Your task to perform on an android device: toggle show notifications on the lock screen Image 0: 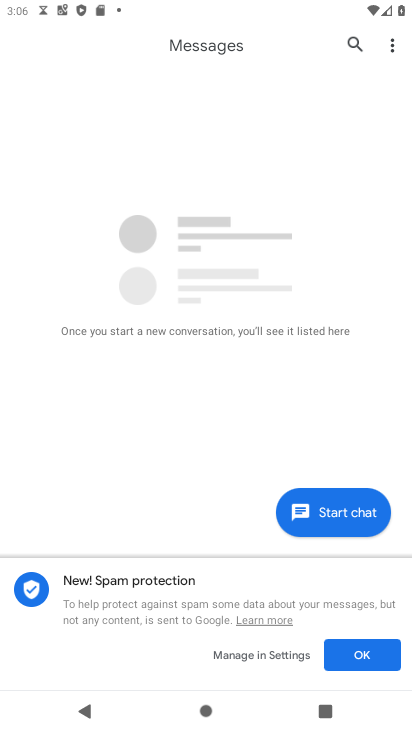
Step 0: press home button
Your task to perform on an android device: toggle show notifications on the lock screen Image 1: 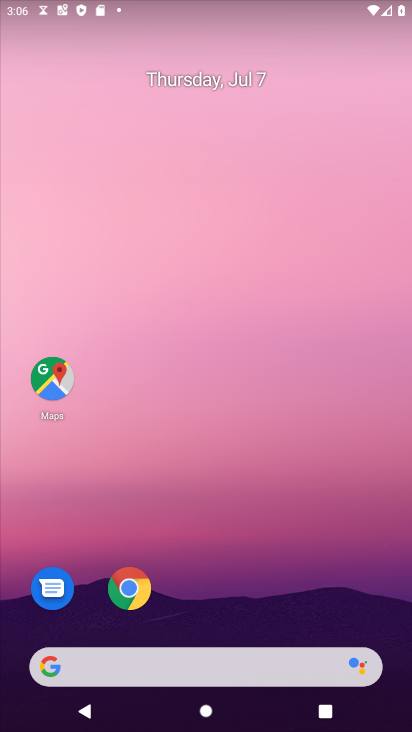
Step 1: drag from (260, 584) to (226, 56)
Your task to perform on an android device: toggle show notifications on the lock screen Image 2: 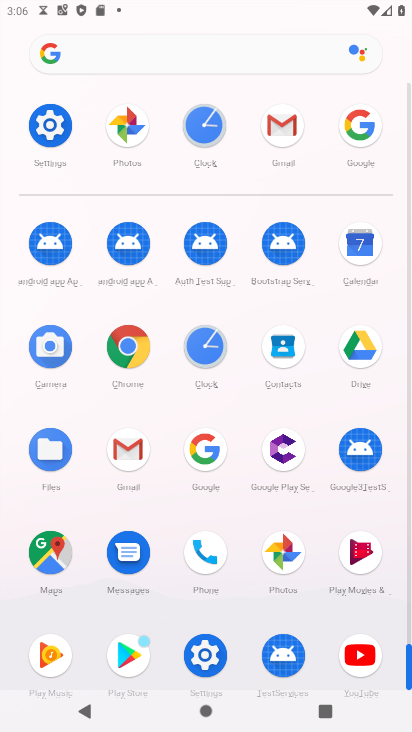
Step 2: click (51, 123)
Your task to perform on an android device: toggle show notifications on the lock screen Image 3: 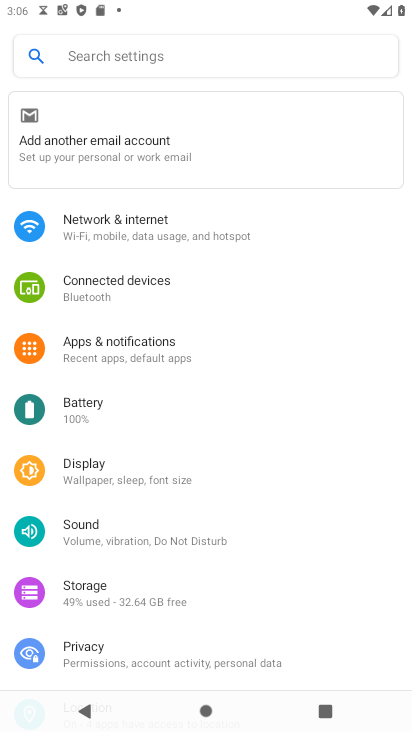
Step 3: click (79, 342)
Your task to perform on an android device: toggle show notifications on the lock screen Image 4: 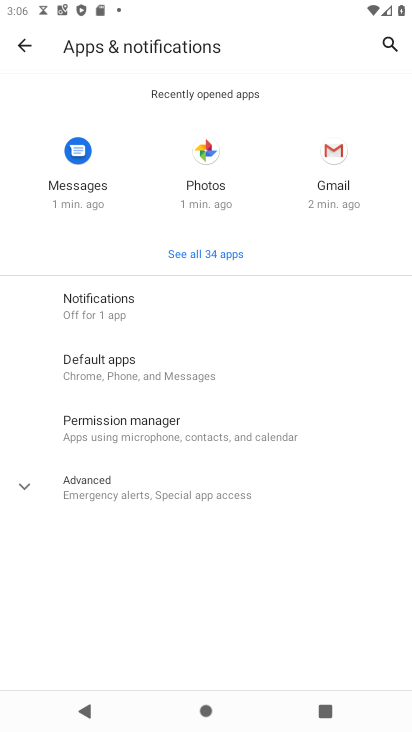
Step 4: click (101, 294)
Your task to perform on an android device: toggle show notifications on the lock screen Image 5: 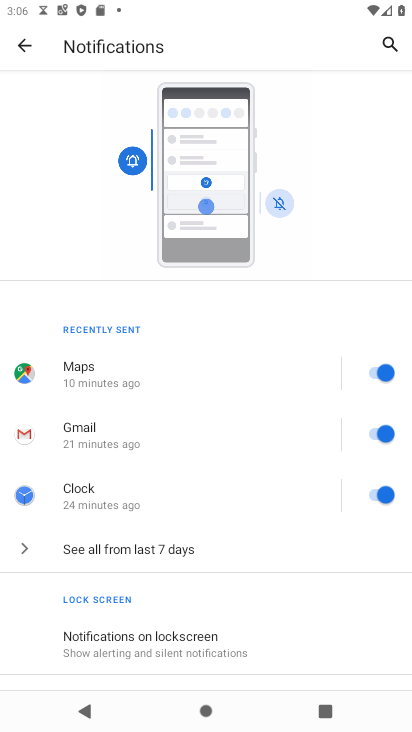
Step 5: click (164, 636)
Your task to perform on an android device: toggle show notifications on the lock screen Image 6: 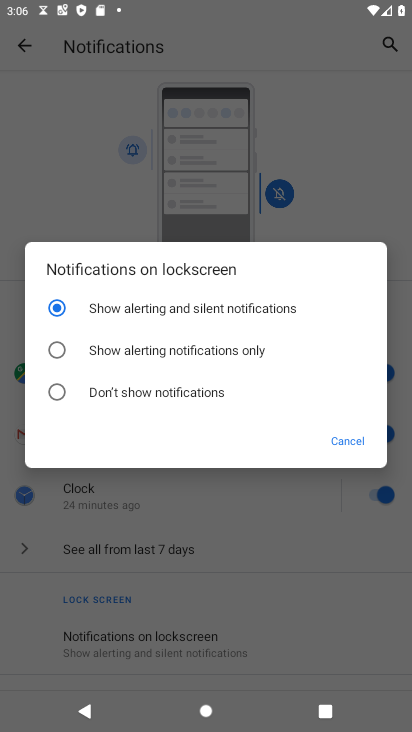
Step 6: click (61, 386)
Your task to perform on an android device: toggle show notifications on the lock screen Image 7: 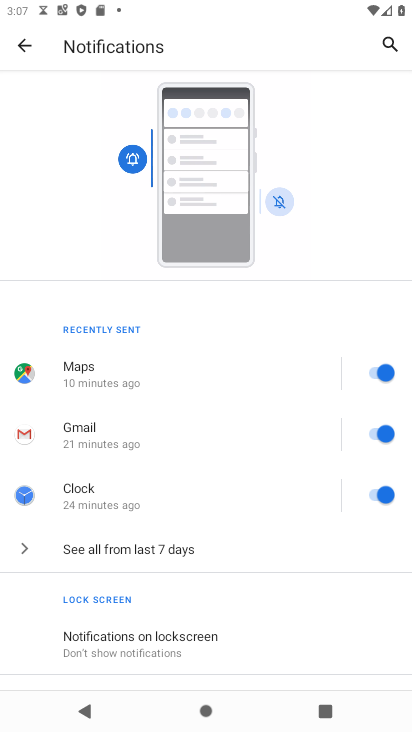
Step 7: task complete